Your task to perform on an android device: Go to Wikipedia Image 0: 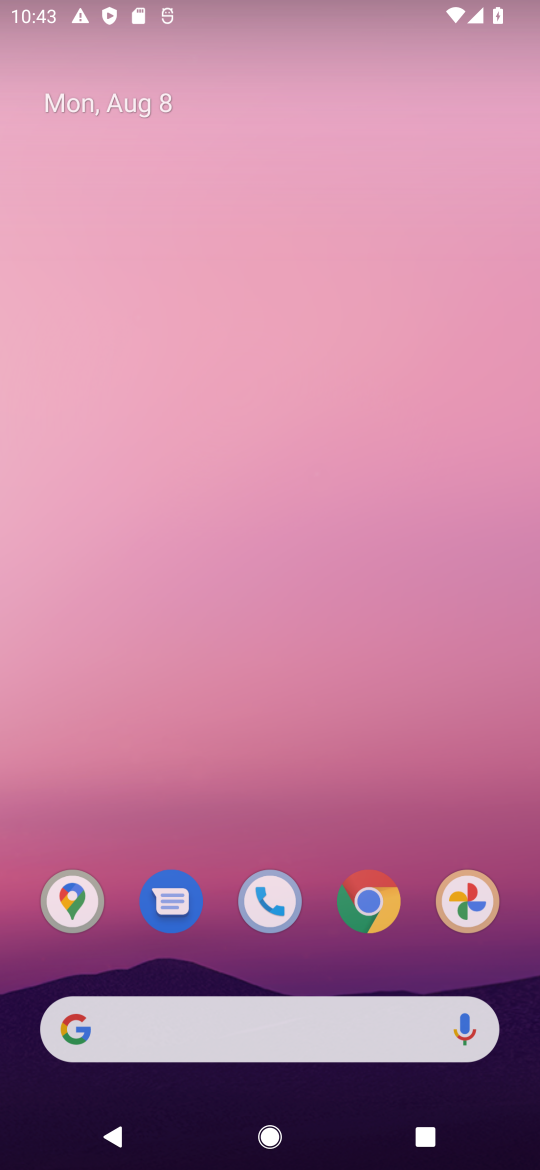
Step 0: press home button
Your task to perform on an android device: Go to Wikipedia Image 1: 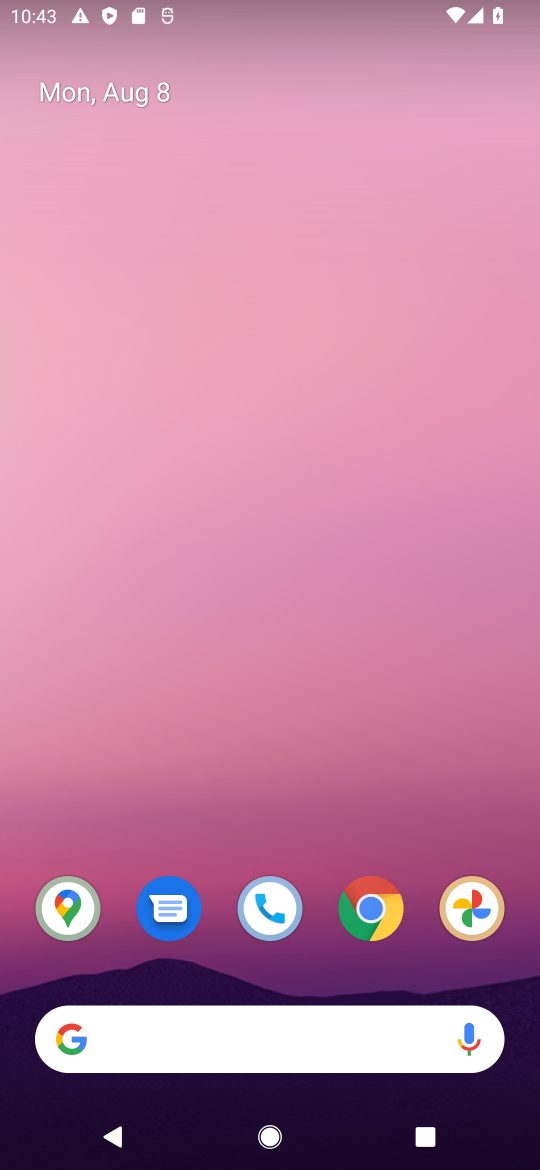
Step 1: click (366, 903)
Your task to perform on an android device: Go to Wikipedia Image 2: 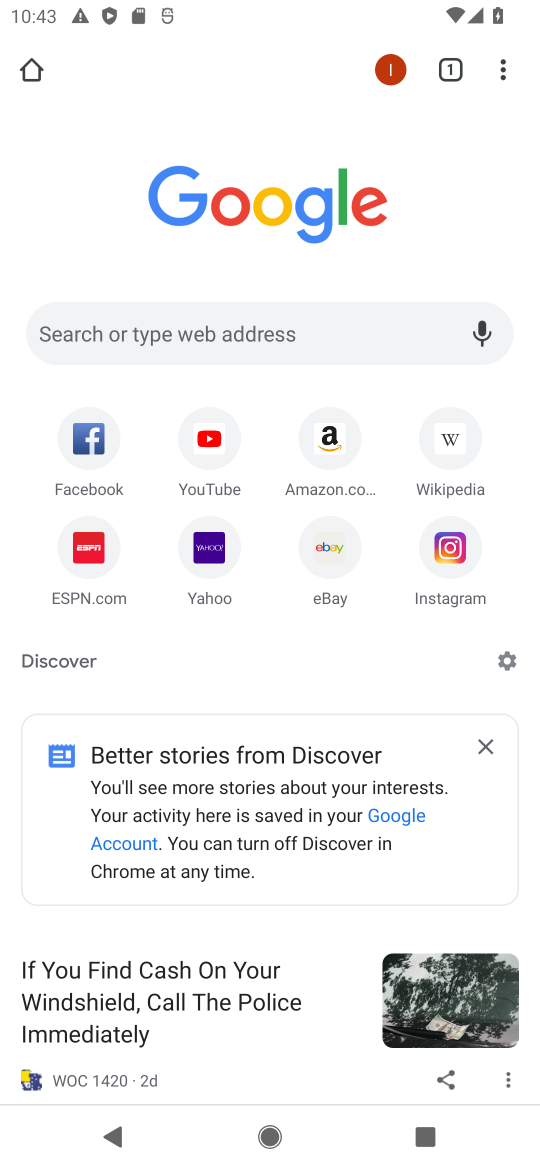
Step 2: click (445, 441)
Your task to perform on an android device: Go to Wikipedia Image 3: 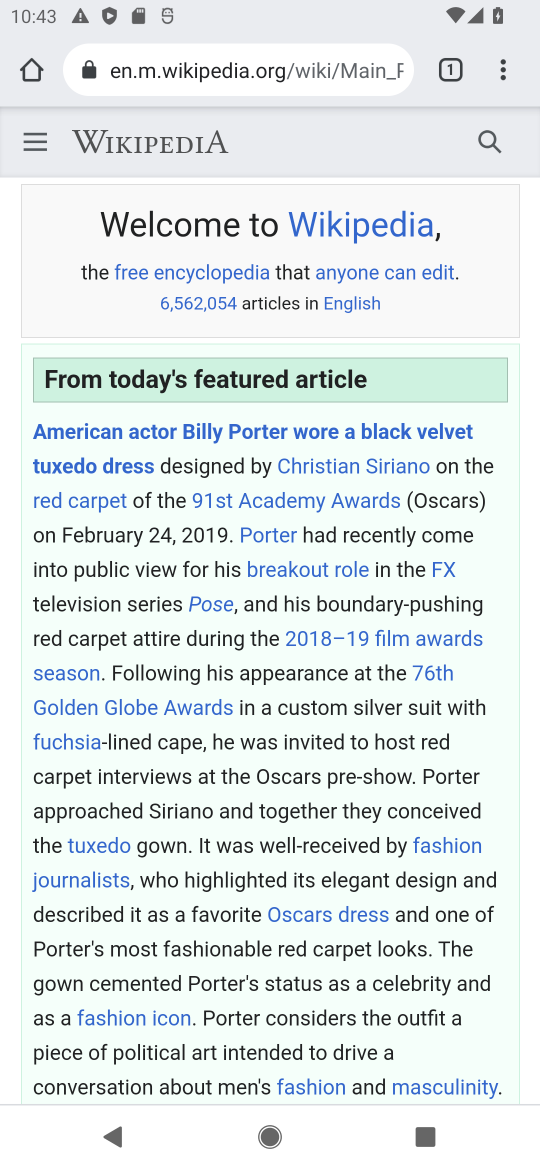
Step 3: task complete